Your task to perform on an android device: Go to settings Image 0: 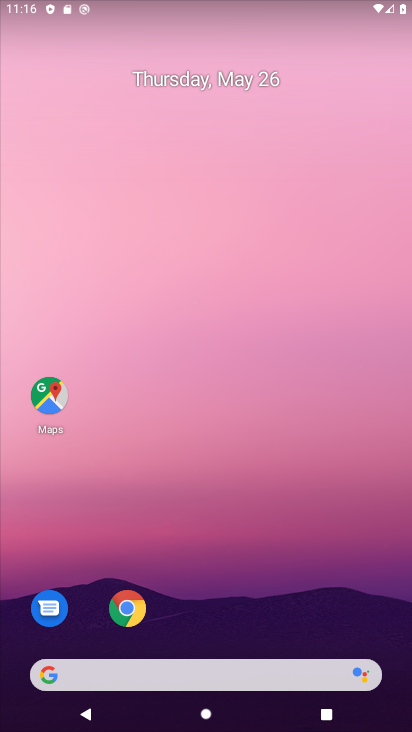
Step 0: drag from (233, 582) to (262, 243)
Your task to perform on an android device: Go to settings Image 1: 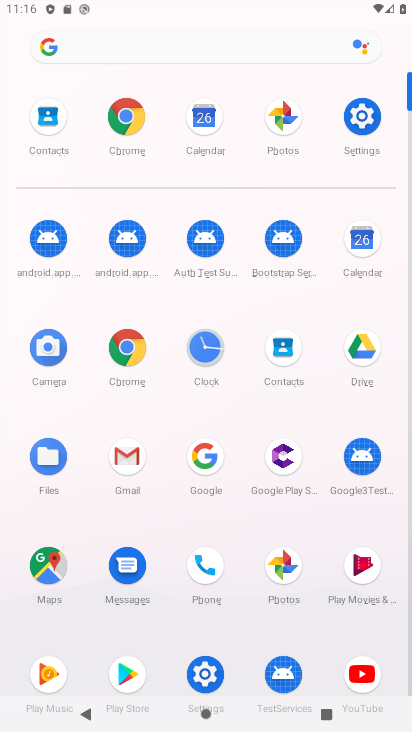
Step 1: click (365, 112)
Your task to perform on an android device: Go to settings Image 2: 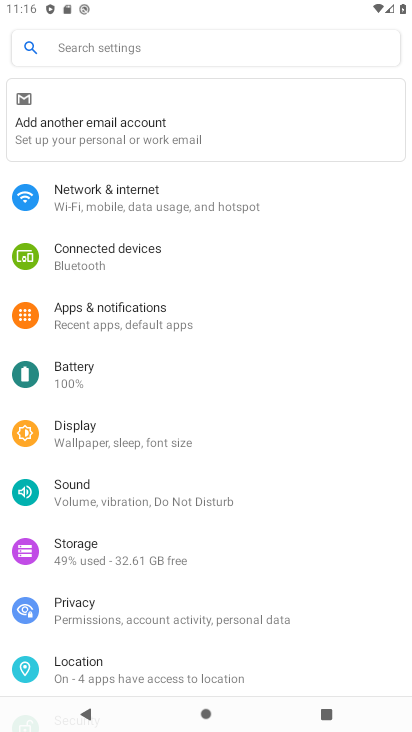
Step 2: task complete